Your task to perform on an android device: turn off airplane mode Image 0: 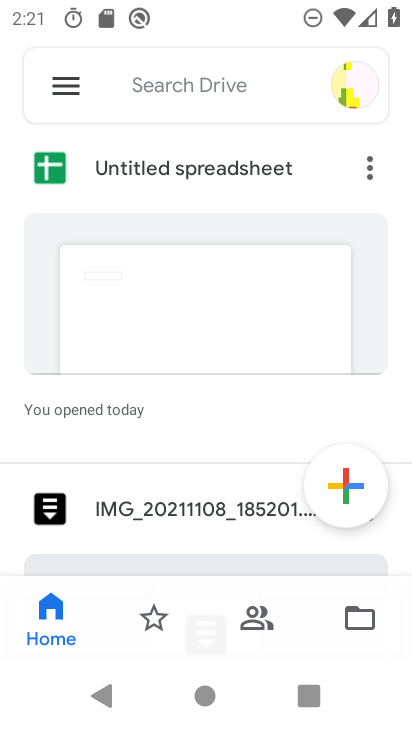
Step 0: drag from (208, 66) to (186, 692)
Your task to perform on an android device: turn off airplane mode Image 1: 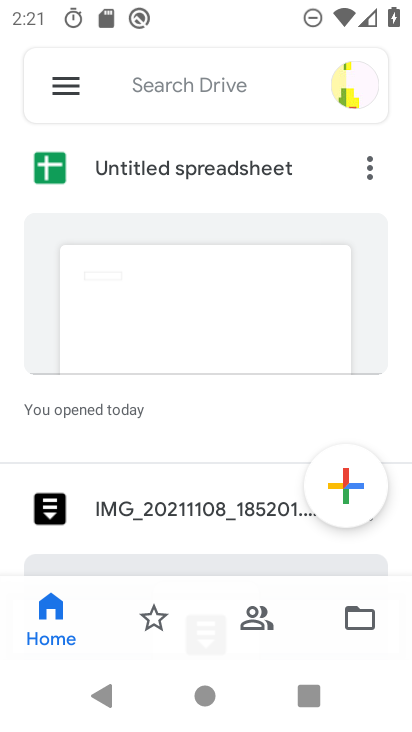
Step 1: press home button
Your task to perform on an android device: turn off airplane mode Image 2: 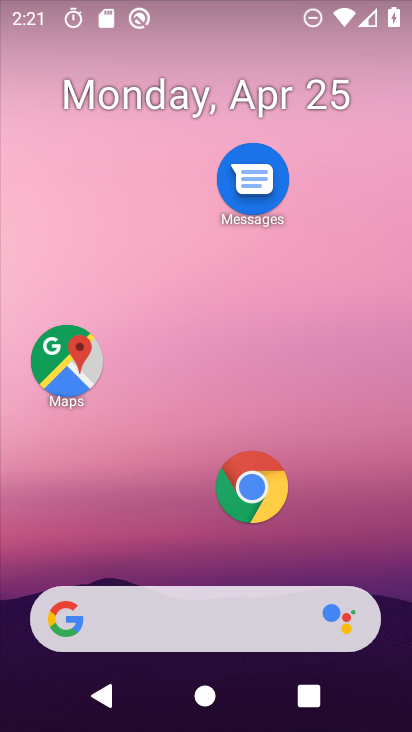
Step 2: drag from (239, 542) to (250, 0)
Your task to perform on an android device: turn off airplane mode Image 3: 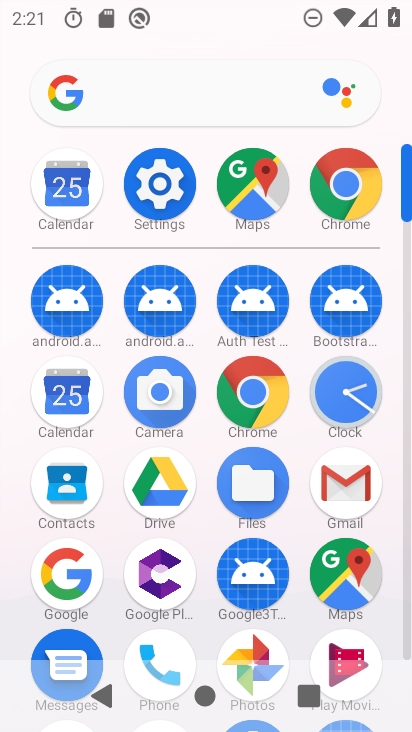
Step 3: click (142, 201)
Your task to perform on an android device: turn off airplane mode Image 4: 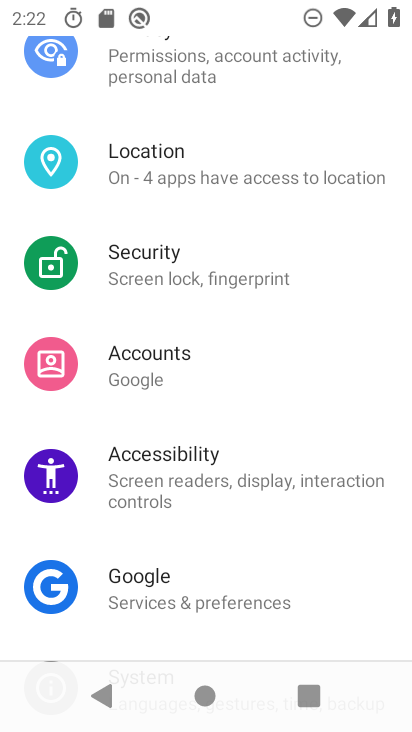
Step 4: drag from (214, 157) to (221, 731)
Your task to perform on an android device: turn off airplane mode Image 5: 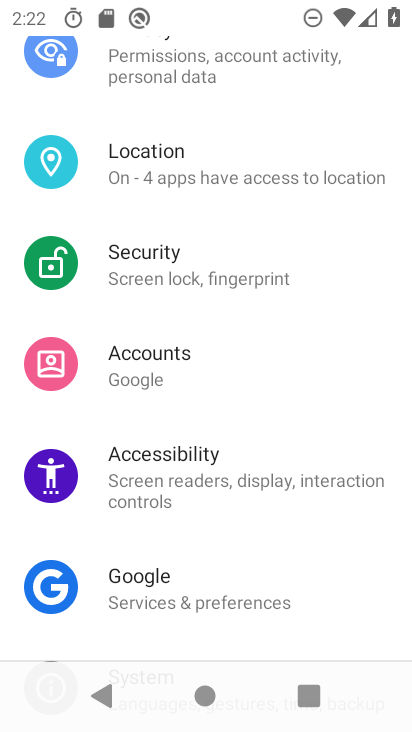
Step 5: drag from (161, 203) to (169, 675)
Your task to perform on an android device: turn off airplane mode Image 6: 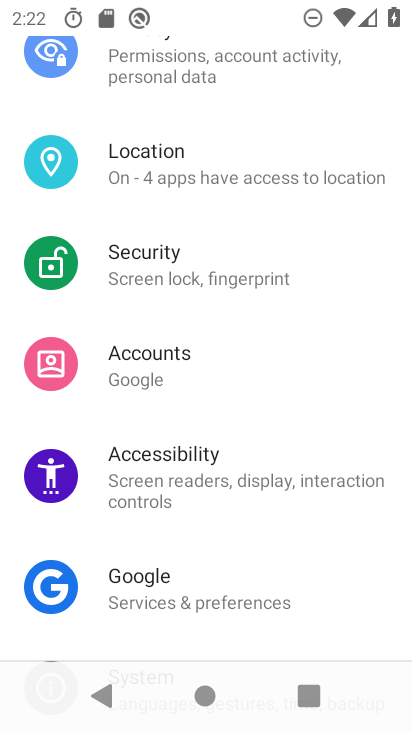
Step 6: drag from (212, 108) to (207, 717)
Your task to perform on an android device: turn off airplane mode Image 7: 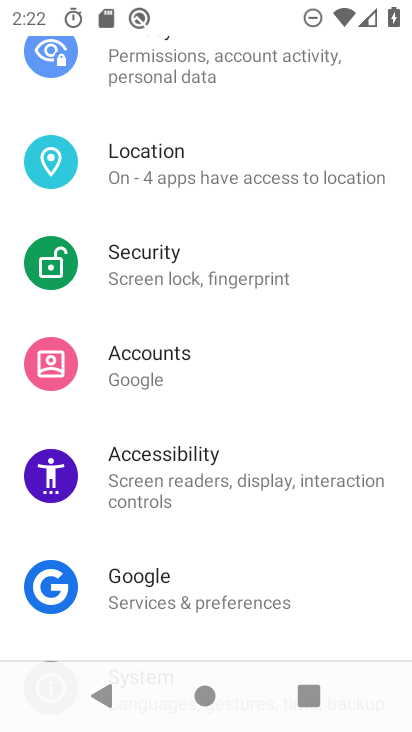
Step 7: drag from (157, 143) to (151, 649)
Your task to perform on an android device: turn off airplane mode Image 8: 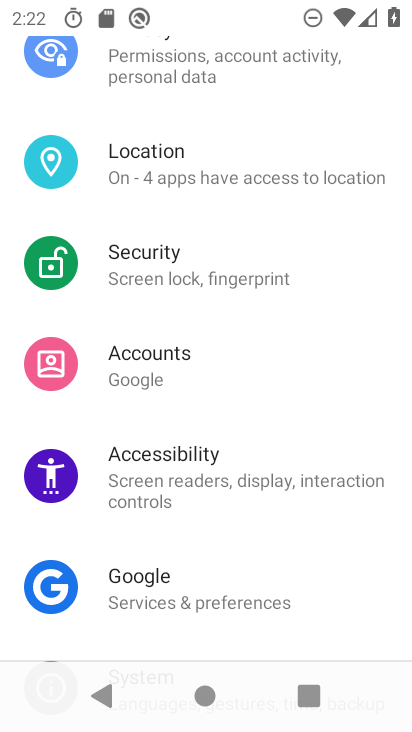
Step 8: drag from (192, 83) to (194, 590)
Your task to perform on an android device: turn off airplane mode Image 9: 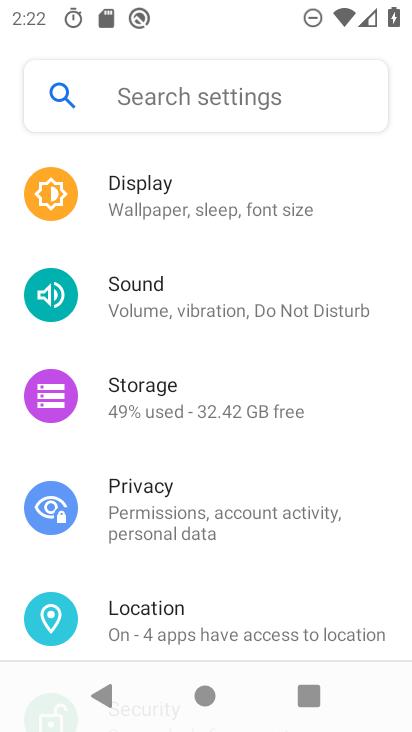
Step 9: drag from (192, 190) to (235, 656)
Your task to perform on an android device: turn off airplane mode Image 10: 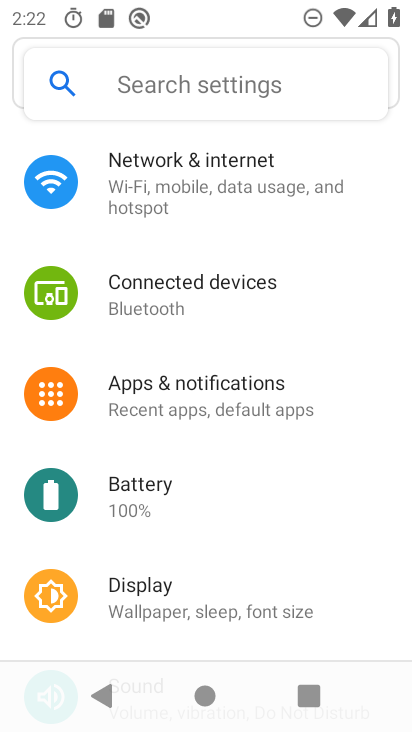
Step 10: click (217, 208)
Your task to perform on an android device: turn off airplane mode Image 11: 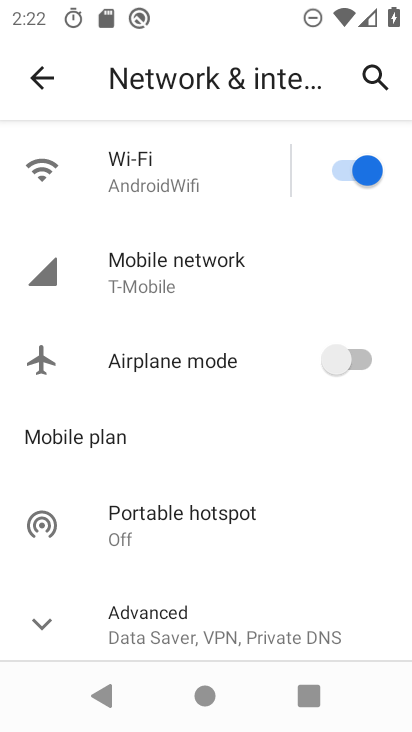
Step 11: task complete